Your task to perform on an android device: Open Google Chrome and open the bookmarks view Image 0: 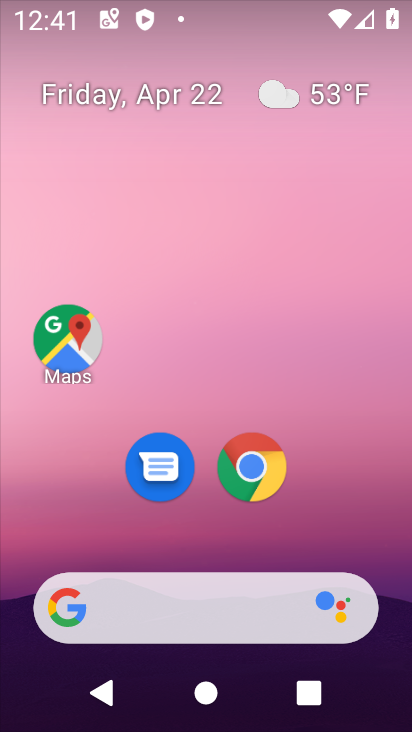
Step 0: click (251, 469)
Your task to perform on an android device: Open Google Chrome and open the bookmarks view Image 1: 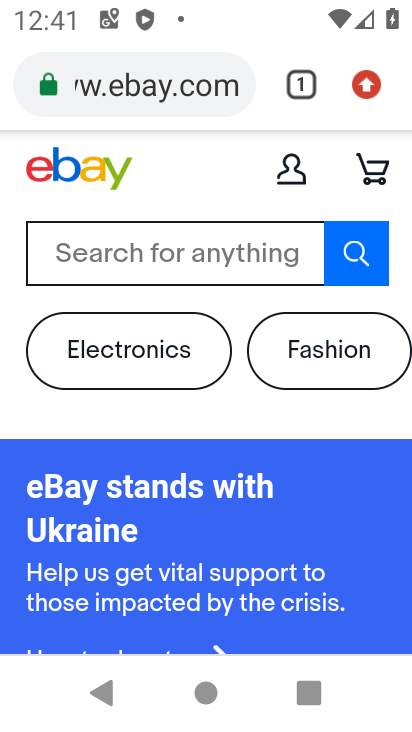
Step 1: click (366, 88)
Your task to perform on an android device: Open Google Chrome and open the bookmarks view Image 2: 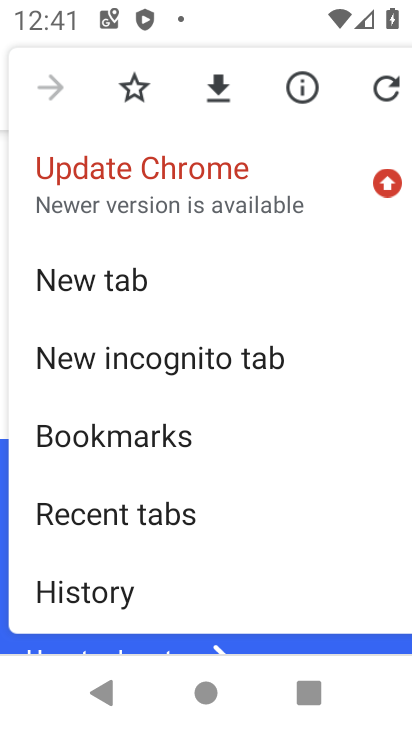
Step 2: click (78, 440)
Your task to perform on an android device: Open Google Chrome and open the bookmarks view Image 3: 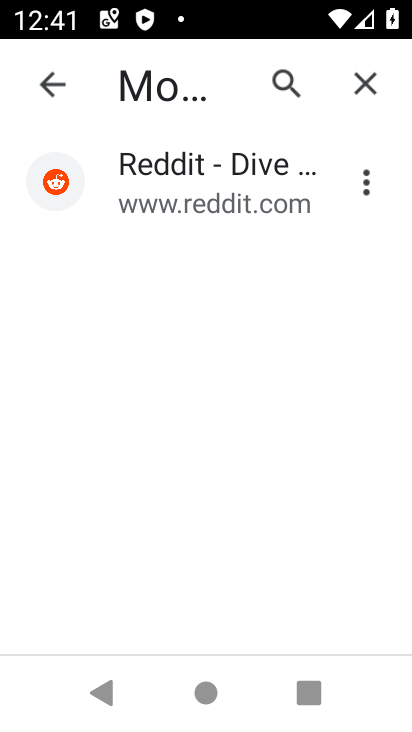
Step 3: task complete